Your task to perform on an android device: toggle improve location accuracy Image 0: 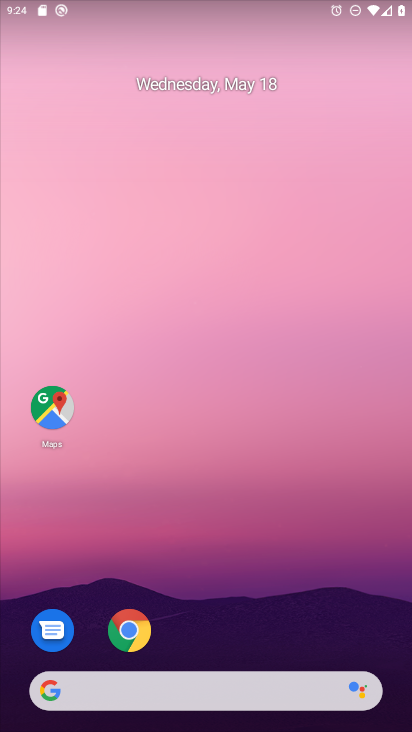
Step 0: drag from (215, 662) to (266, 4)
Your task to perform on an android device: toggle improve location accuracy Image 1: 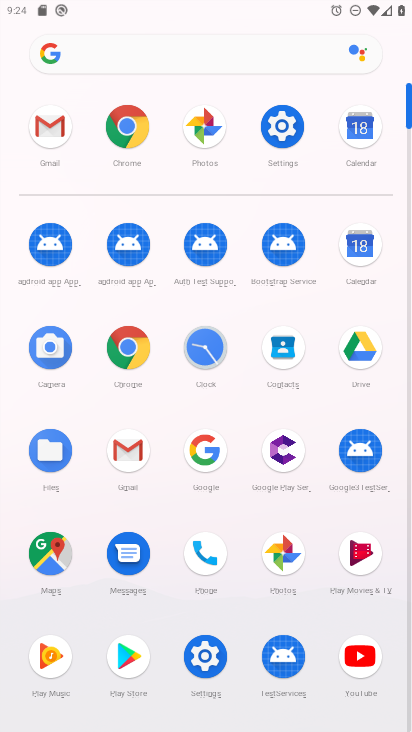
Step 1: click (207, 676)
Your task to perform on an android device: toggle improve location accuracy Image 2: 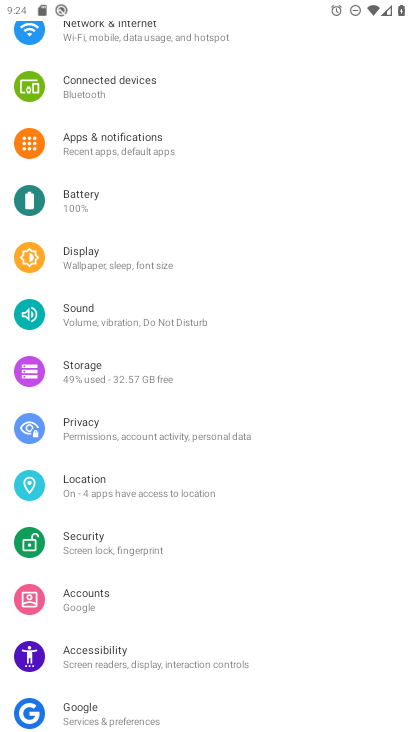
Step 2: click (114, 479)
Your task to perform on an android device: toggle improve location accuracy Image 3: 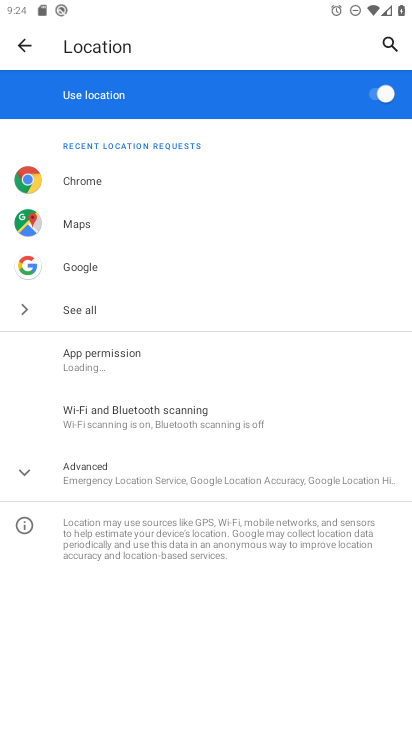
Step 3: click (125, 477)
Your task to perform on an android device: toggle improve location accuracy Image 4: 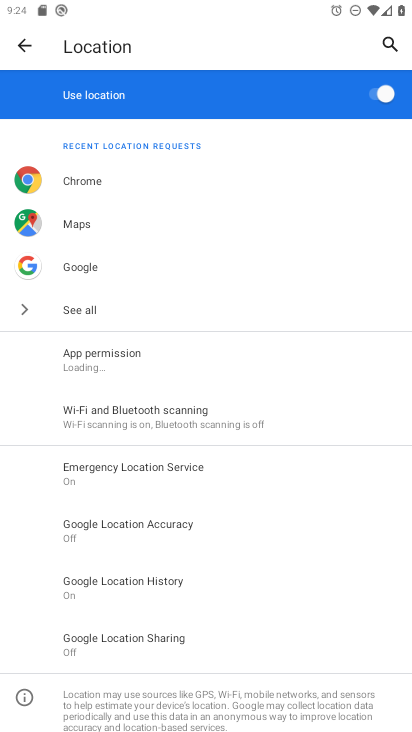
Step 4: click (179, 531)
Your task to perform on an android device: toggle improve location accuracy Image 5: 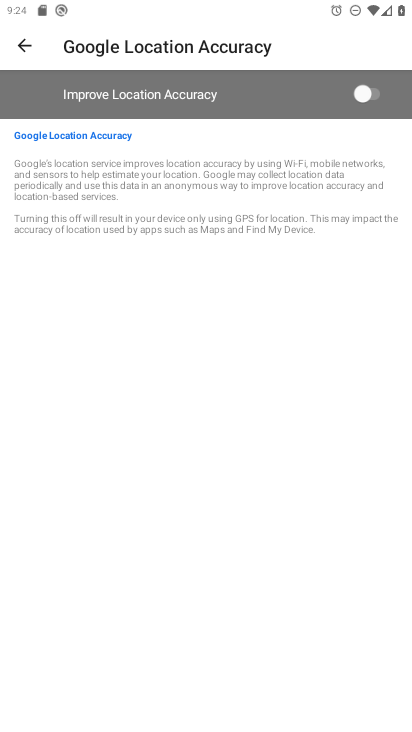
Step 5: click (373, 87)
Your task to perform on an android device: toggle improve location accuracy Image 6: 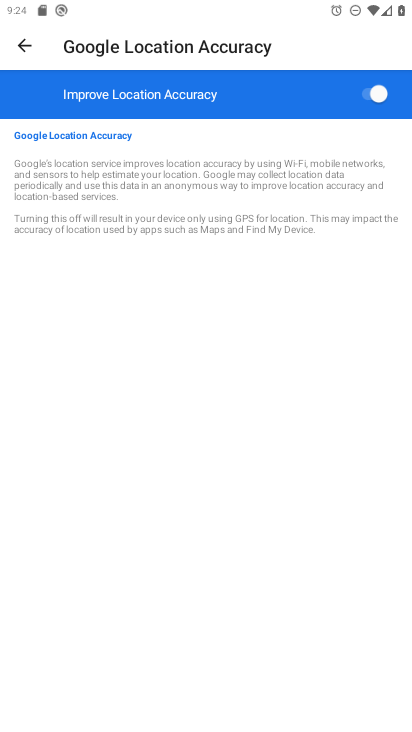
Step 6: task complete